Your task to perform on an android device: turn on airplane mode Image 0: 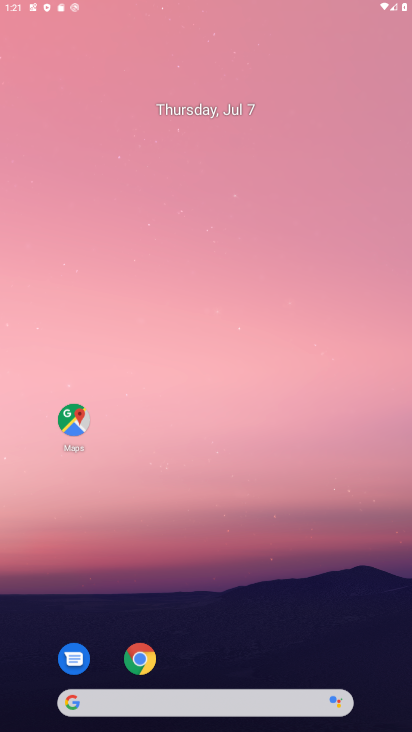
Step 0: press home button
Your task to perform on an android device: turn on airplane mode Image 1: 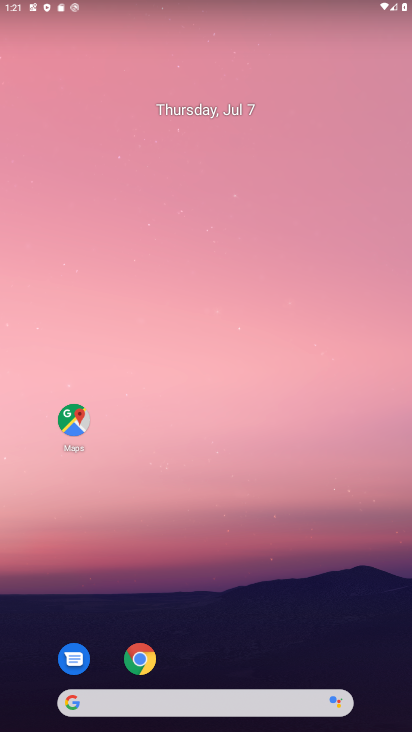
Step 1: drag from (218, 678) to (267, 153)
Your task to perform on an android device: turn on airplane mode Image 2: 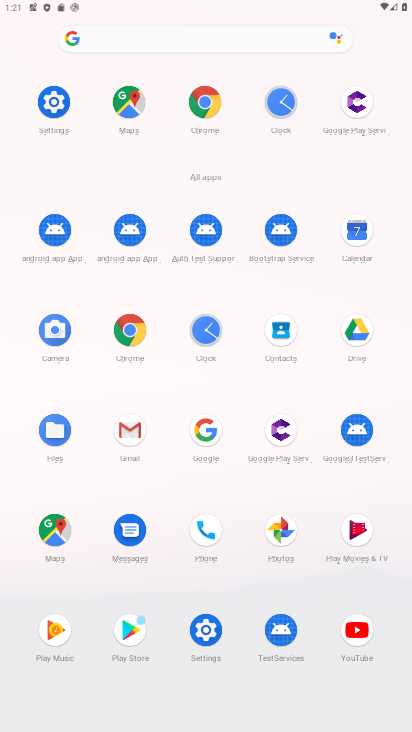
Step 2: drag from (216, 31) to (216, 363)
Your task to perform on an android device: turn on airplane mode Image 3: 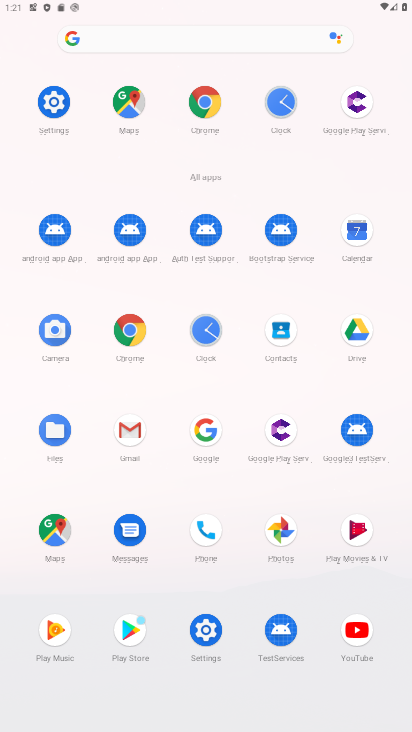
Step 3: drag from (207, 2) to (188, 473)
Your task to perform on an android device: turn on airplane mode Image 4: 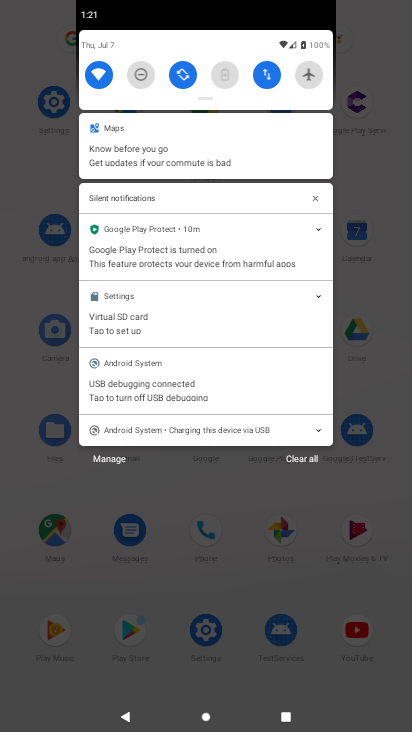
Step 4: click (308, 71)
Your task to perform on an android device: turn on airplane mode Image 5: 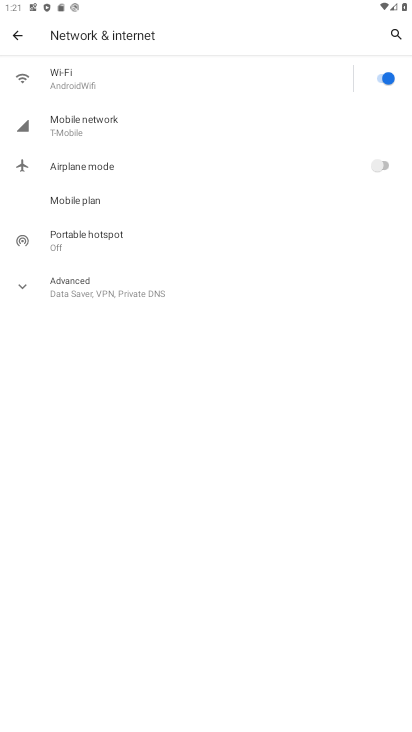
Step 5: click (385, 162)
Your task to perform on an android device: turn on airplane mode Image 6: 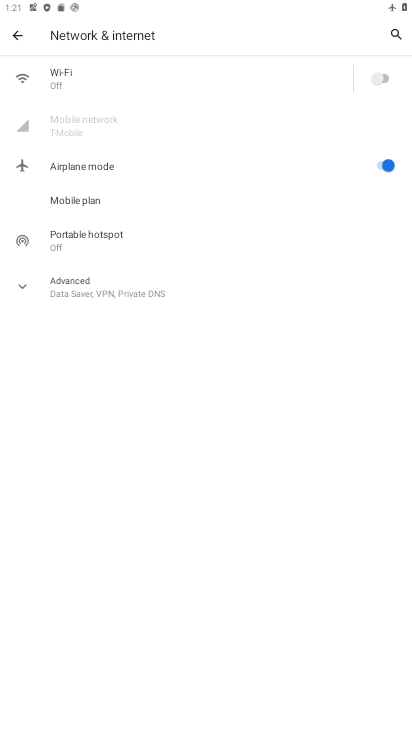
Step 6: task complete